Your task to perform on an android device: Open sound settings Image 0: 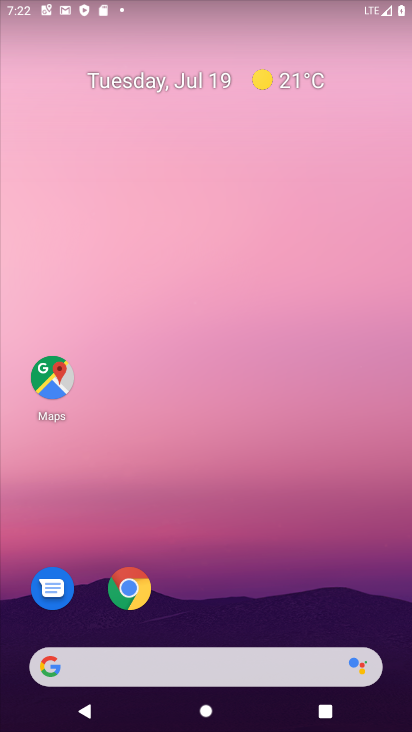
Step 0: drag from (244, 581) to (314, 41)
Your task to perform on an android device: Open sound settings Image 1: 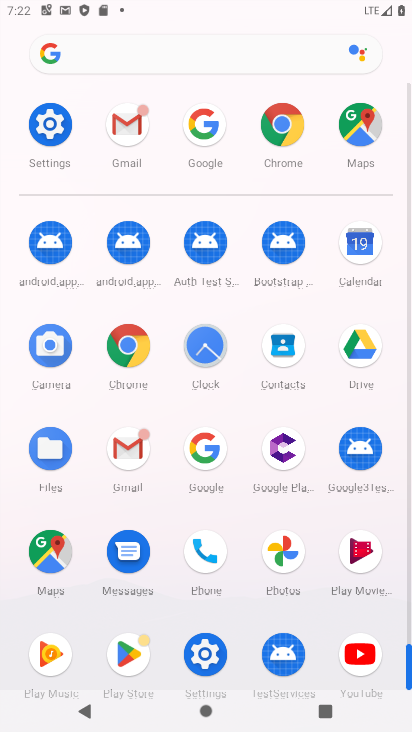
Step 1: click (192, 643)
Your task to perform on an android device: Open sound settings Image 2: 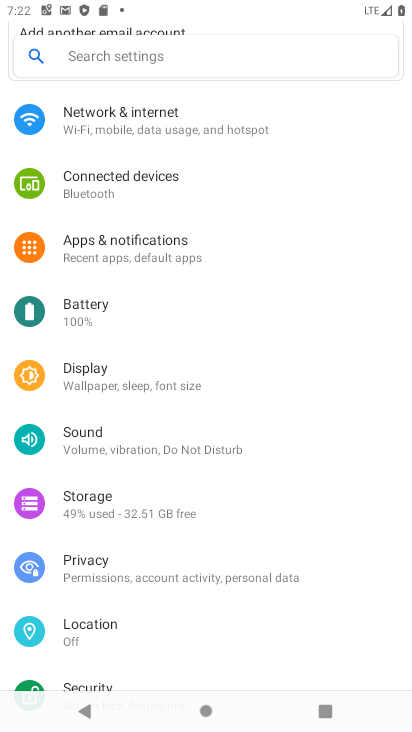
Step 2: click (151, 444)
Your task to perform on an android device: Open sound settings Image 3: 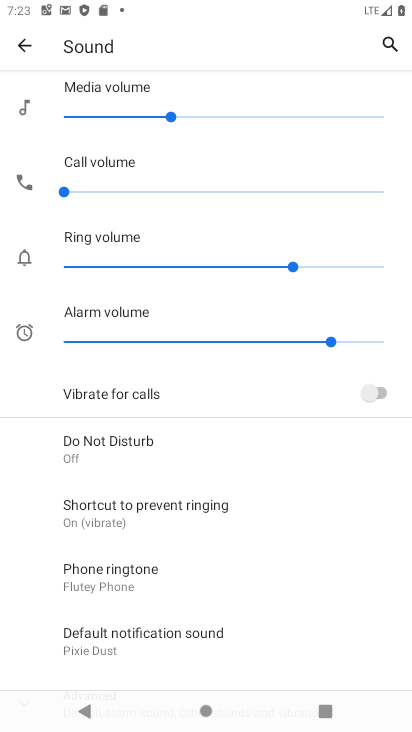
Step 3: task complete